Your task to perform on an android device: Open calendar and show me the first week of next month Image 0: 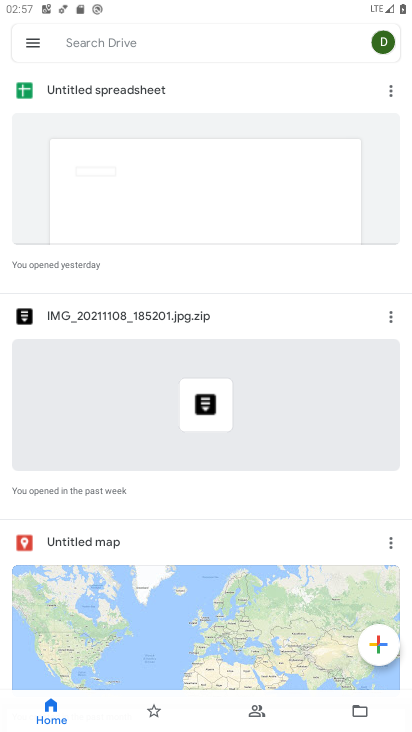
Step 0: press home button
Your task to perform on an android device: Open calendar and show me the first week of next month Image 1: 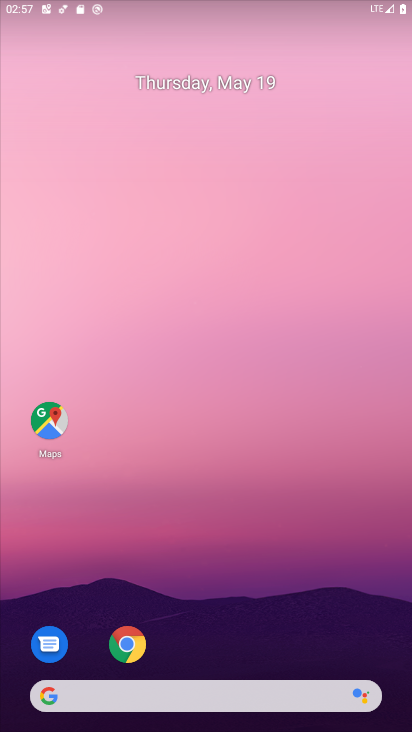
Step 1: drag from (226, 619) to (215, 257)
Your task to perform on an android device: Open calendar and show me the first week of next month Image 2: 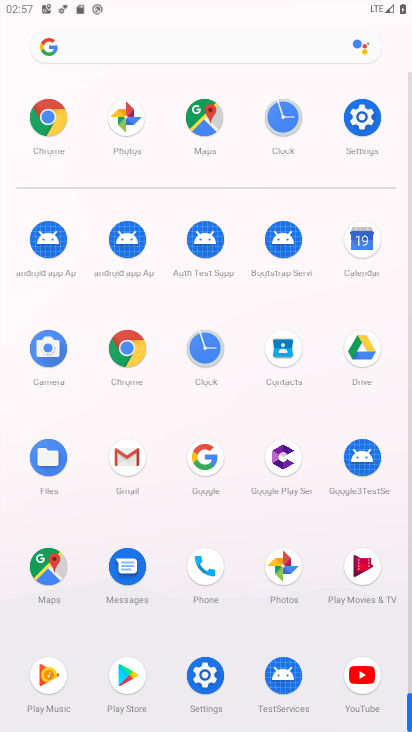
Step 2: click (362, 228)
Your task to perform on an android device: Open calendar and show me the first week of next month Image 3: 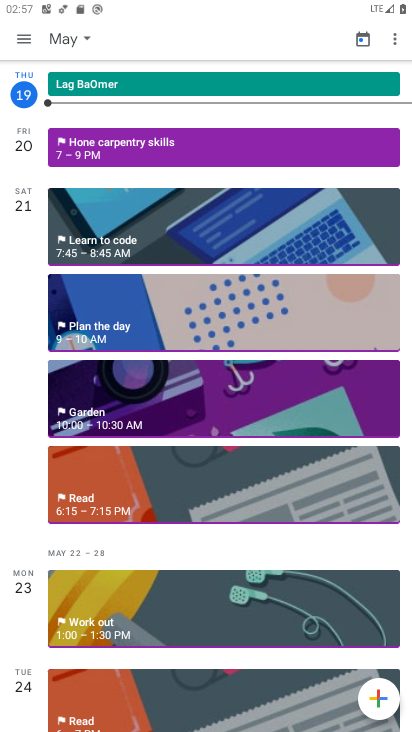
Step 3: click (29, 41)
Your task to perform on an android device: Open calendar and show me the first week of next month Image 4: 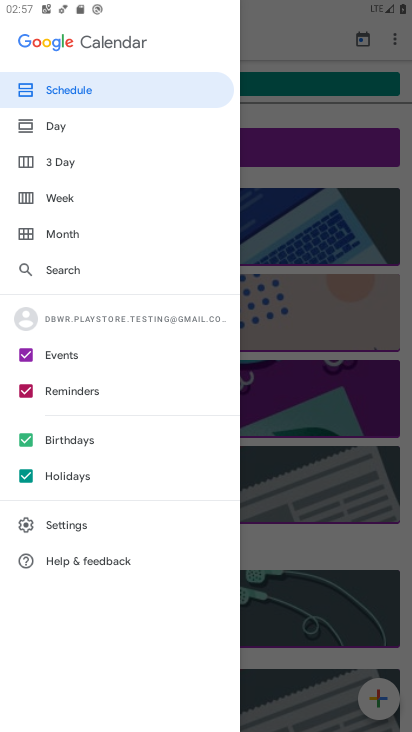
Step 4: click (77, 232)
Your task to perform on an android device: Open calendar and show me the first week of next month Image 5: 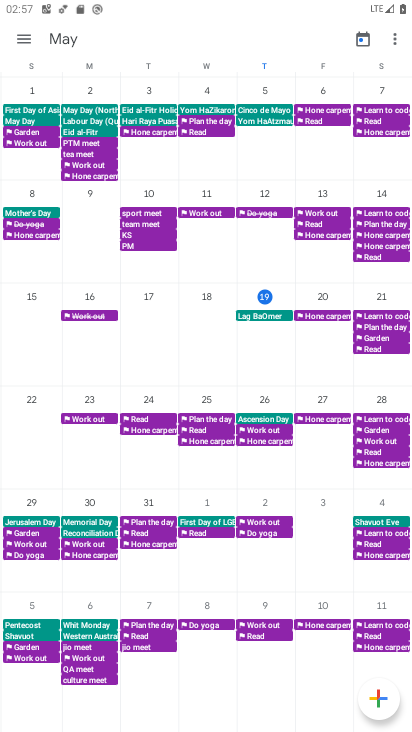
Step 5: task complete